Your task to perform on an android device: turn off sleep mode Image 0: 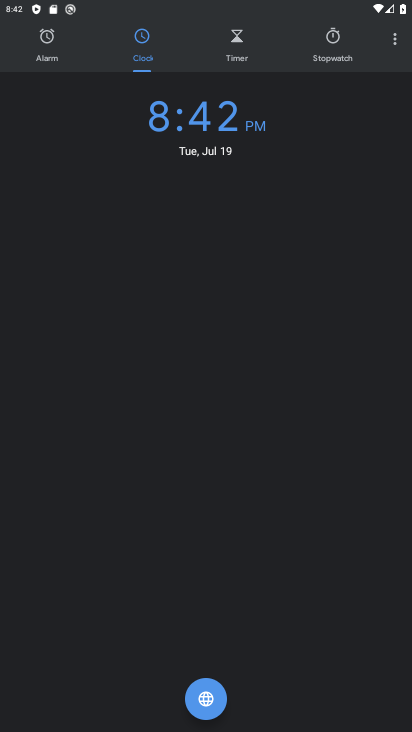
Step 0: press home button
Your task to perform on an android device: turn off sleep mode Image 1: 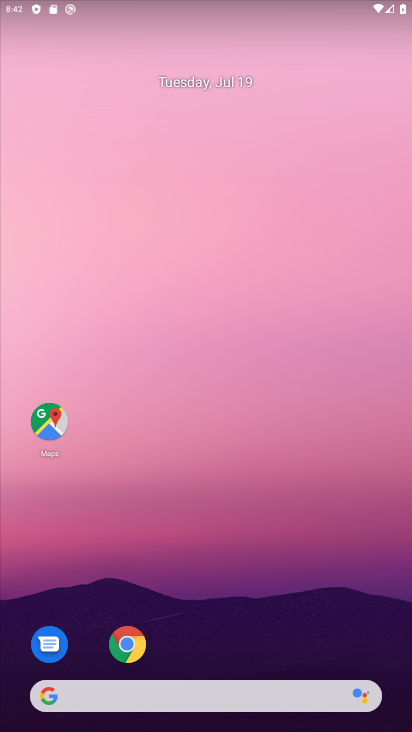
Step 1: drag from (305, 623) to (237, 121)
Your task to perform on an android device: turn off sleep mode Image 2: 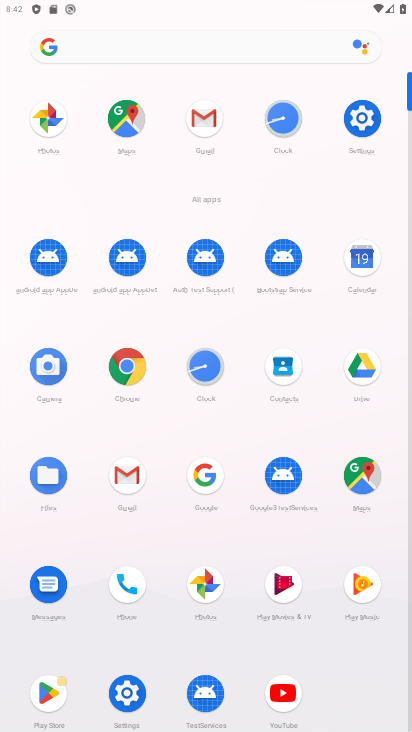
Step 2: click (365, 119)
Your task to perform on an android device: turn off sleep mode Image 3: 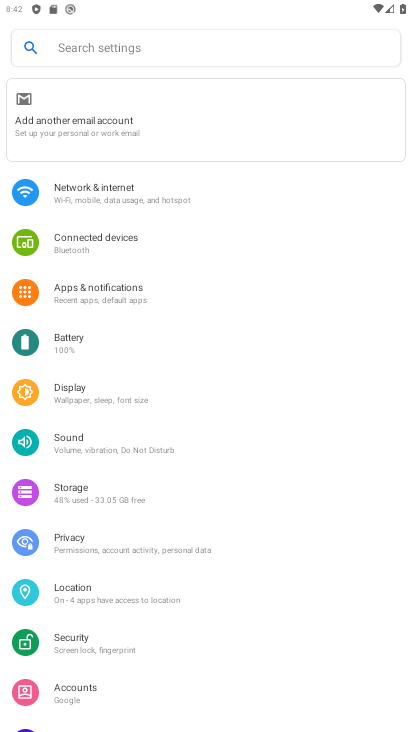
Step 3: drag from (164, 636) to (154, 501)
Your task to perform on an android device: turn off sleep mode Image 4: 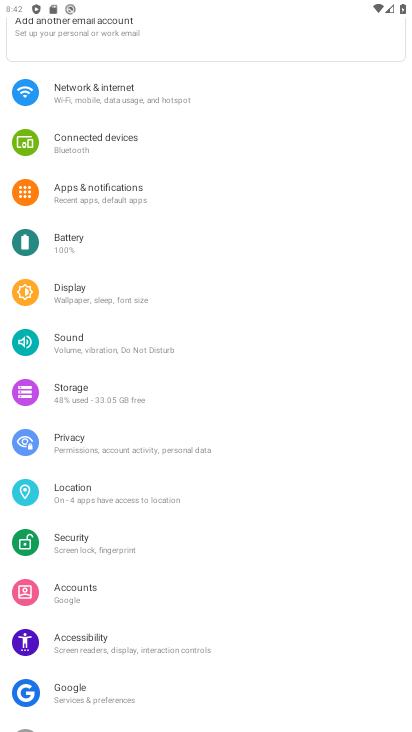
Step 4: press home button
Your task to perform on an android device: turn off sleep mode Image 5: 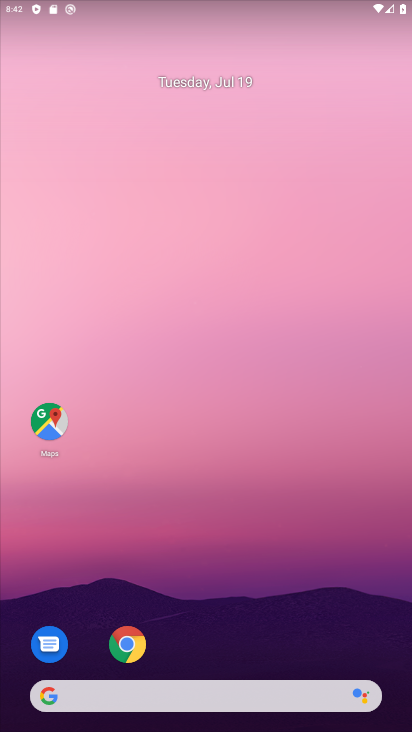
Step 5: drag from (243, 628) to (223, 130)
Your task to perform on an android device: turn off sleep mode Image 6: 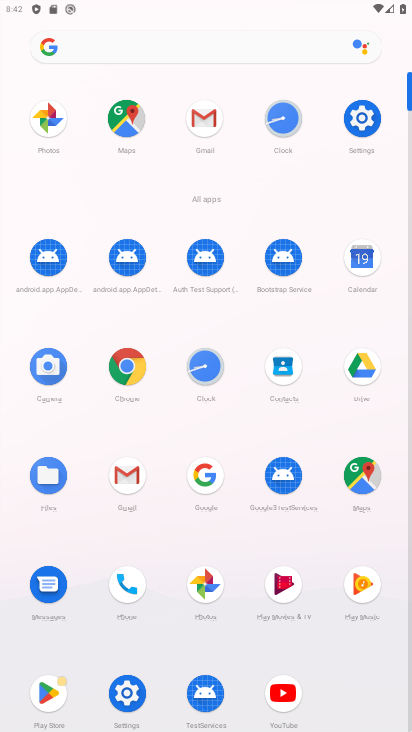
Step 6: click (368, 132)
Your task to perform on an android device: turn off sleep mode Image 7: 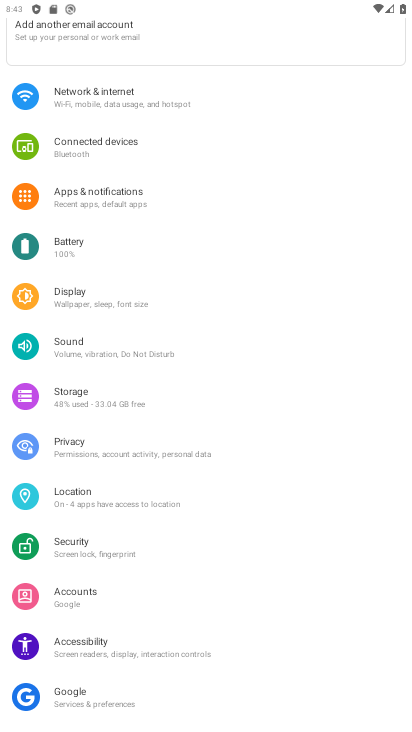
Step 7: click (143, 302)
Your task to perform on an android device: turn off sleep mode Image 8: 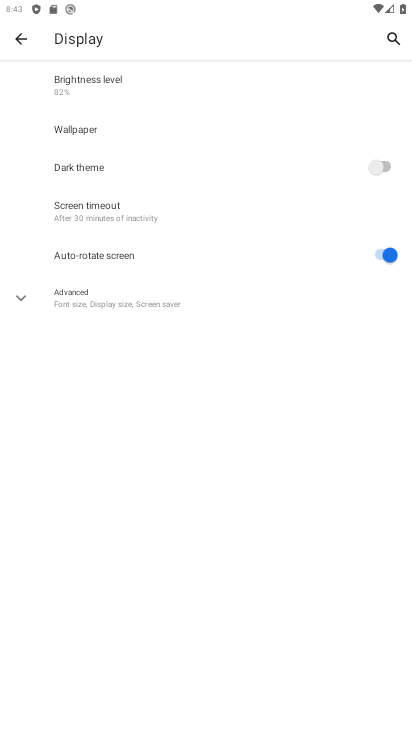
Step 8: click (143, 302)
Your task to perform on an android device: turn off sleep mode Image 9: 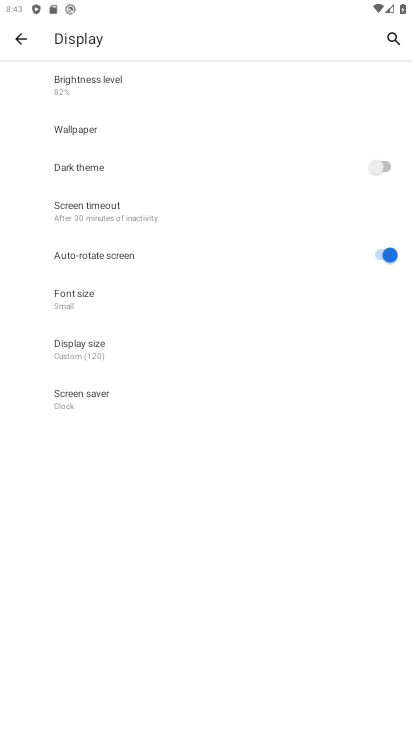
Step 9: task complete